Your task to perform on an android device: Search for the best rated coffee table on Target. Image 0: 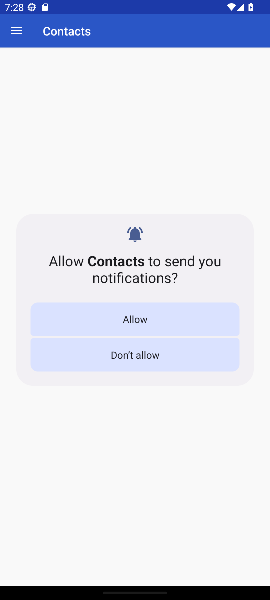
Step 0: press home button
Your task to perform on an android device: Search for the best rated coffee table on Target. Image 1: 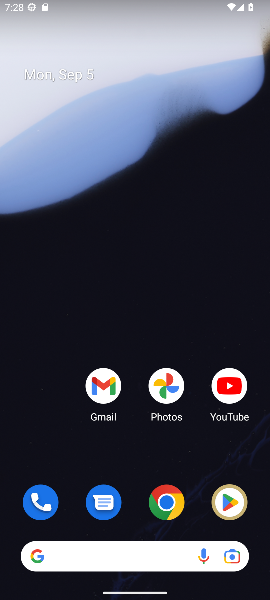
Step 1: drag from (196, 512) to (137, 19)
Your task to perform on an android device: Search for the best rated coffee table on Target. Image 2: 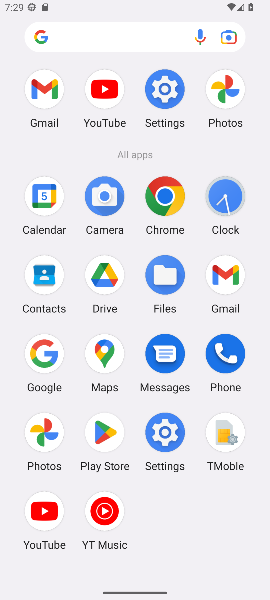
Step 2: click (40, 345)
Your task to perform on an android device: Search for the best rated coffee table on Target. Image 3: 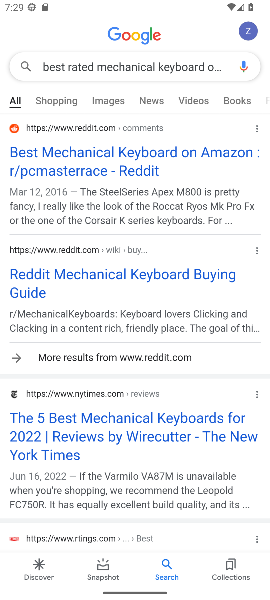
Step 3: press back button
Your task to perform on an android device: Search for the best rated coffee table on Target. Image 4: 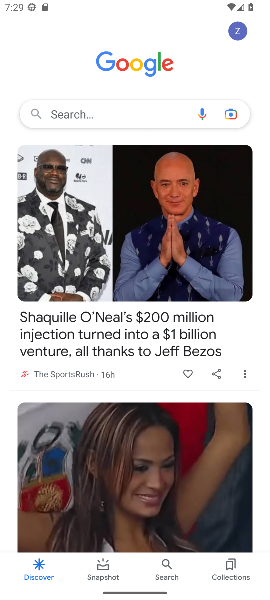
Step 4: click (94, 119)
Your task to perform on an android device: Search for the best rated coffee table on Target. Image 5: 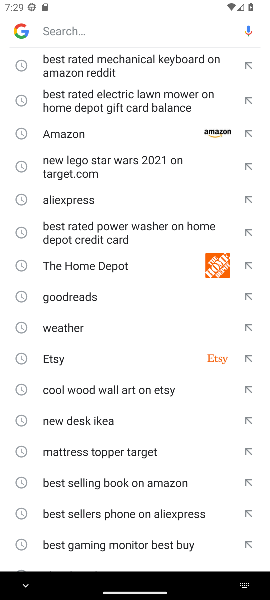
Step 5: type "best rated coffee table on Target"
Your task to perform on an android device: Search for the best rated coffee table on Target. Image 6: 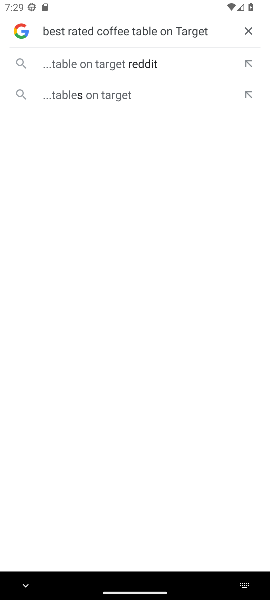
Step 6: click (98, 94)
Your task to perform on an android device: Search for the best rated coffee table on Target. Image 7: 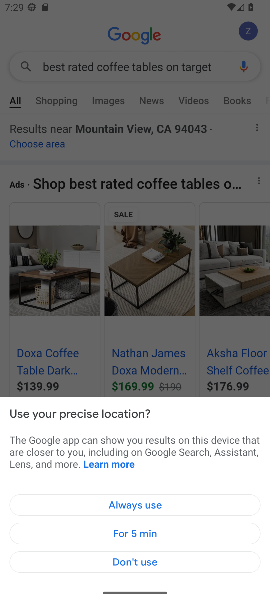
Step 7: task complete